Your task to perform on an android device: Check the weather Image 0: 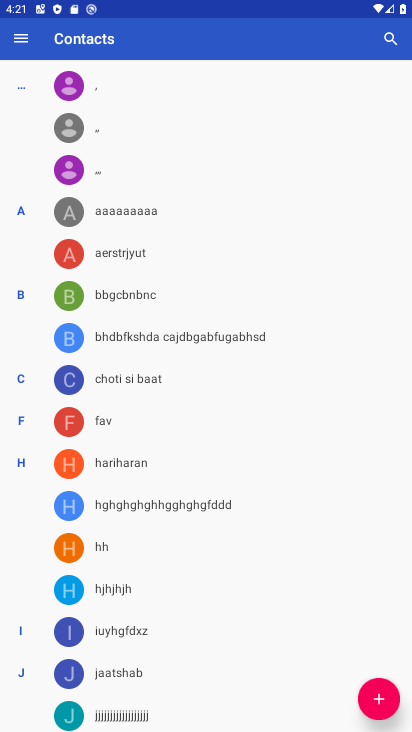
Step 0: press home button
Your task to perform on an android device: Check the weather Image 1: 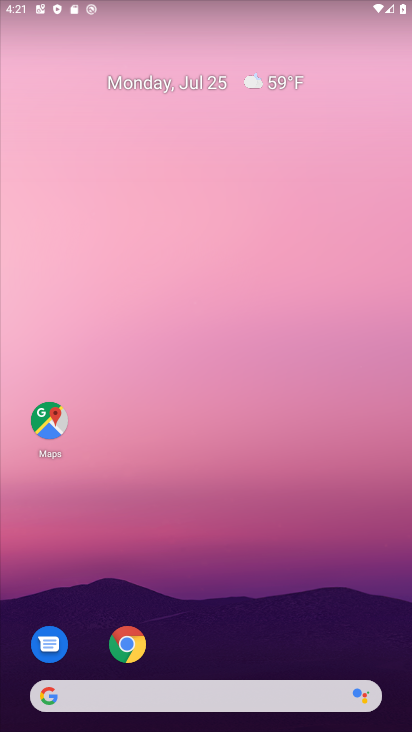
Step 1: drag from (193, 683) to (257, 139)
Your task to perform on an android device: Check the weather Image 2: 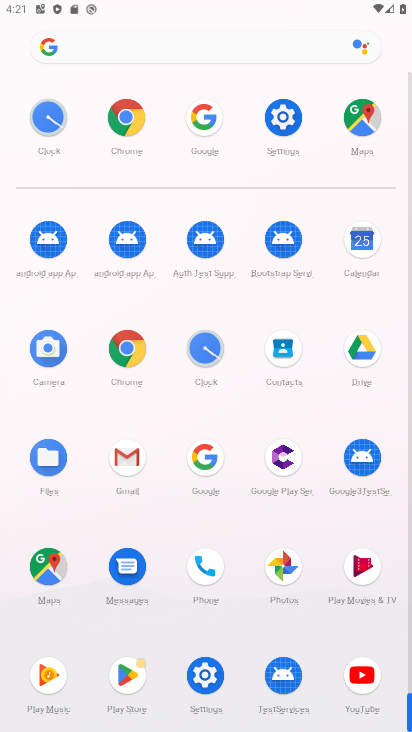
Step 2: click (210, 459)
Your task to perform on an android device: Check the weather Image 3: 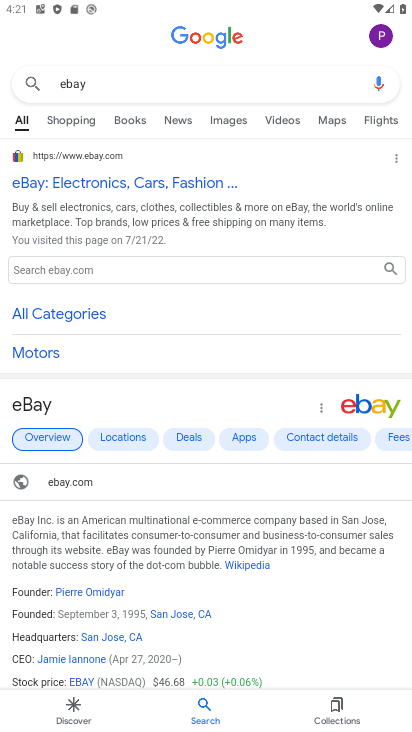
Step 3: drag from (123, 91) to (40, 91)
Your task to perform on an android device: Check the weather Image 4: 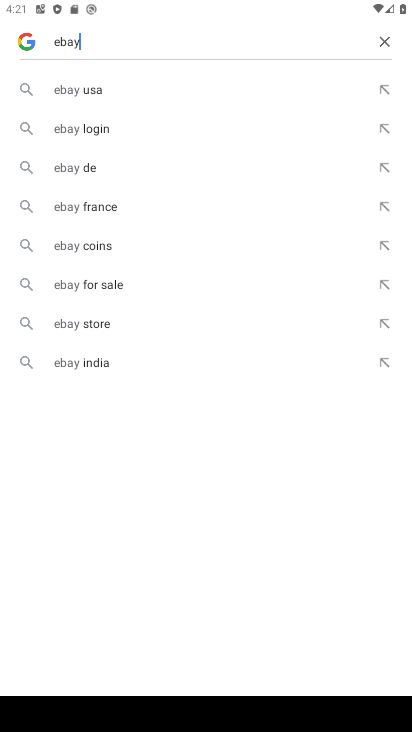
Step 4: click (383, 41)
Your task to perform on an android device: Check the weather Image 5: 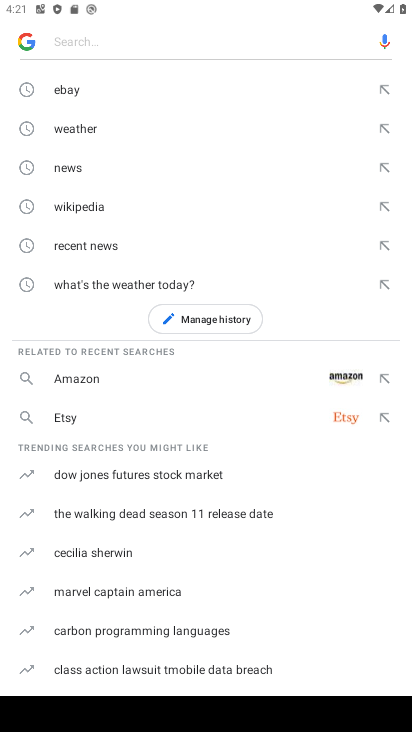
Step 5: click (75, 134)
Your task to perform on an android device: Check the weather Image 6: 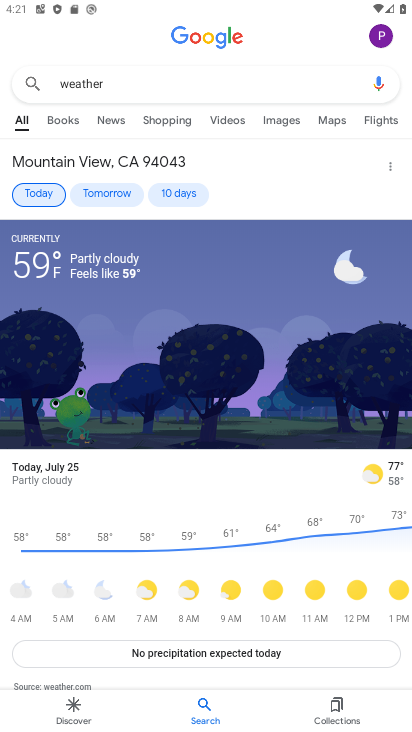
Step 6: task complete